Your task to perform on an android device: Do I have any events tomorrow? Image 0: 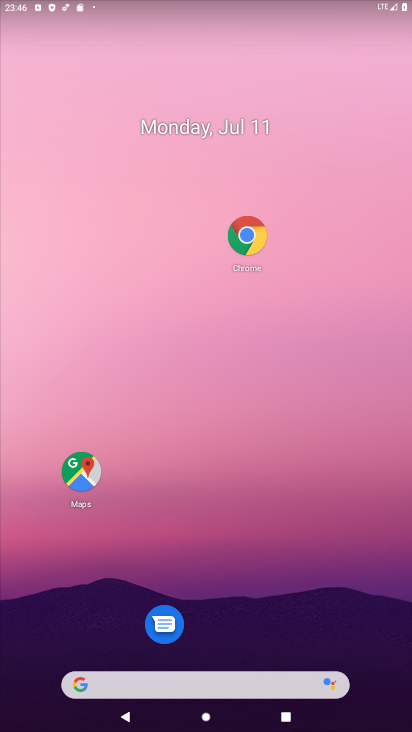
Step 0: drag from (201, 631) to (159, 149)
Your task to perform on an android device: Do I have any events tomorrow? Image 1: 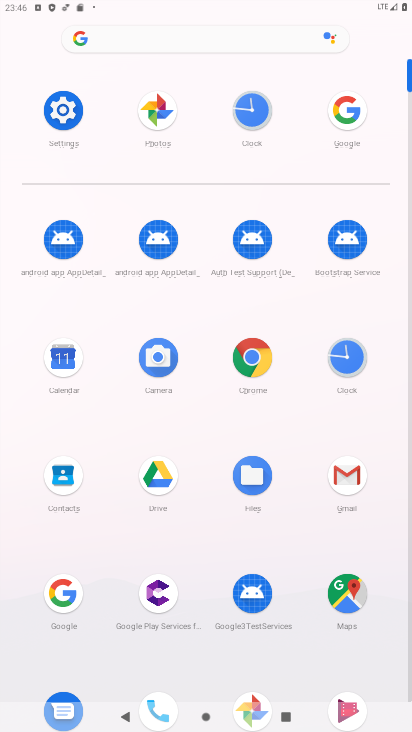
Step 1: click (59, 111)
Your task to perform on an android device: Do I have any events tomorrow? Image 2: 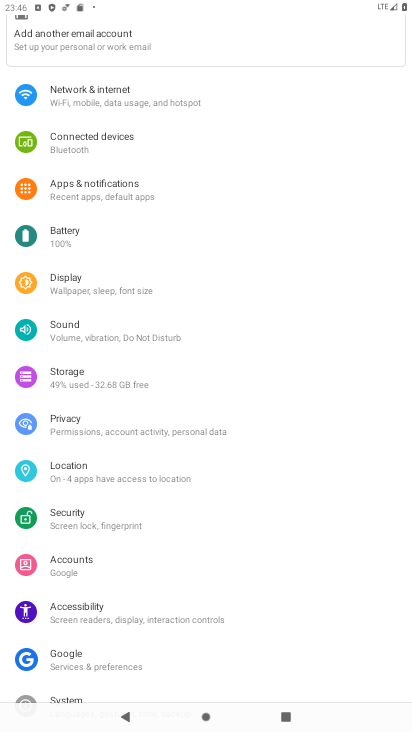
Step 2: press home button
Your task to perform on an android device: Do I have any events tomorrow? Image 3: 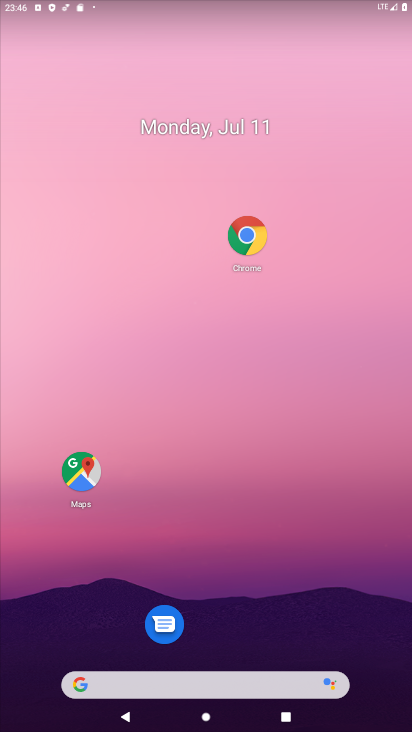
Step 3: drag from (201, 653) to (204, 284)
Your task to perform on an android device: Do I have any events tomorrow? Image 4: 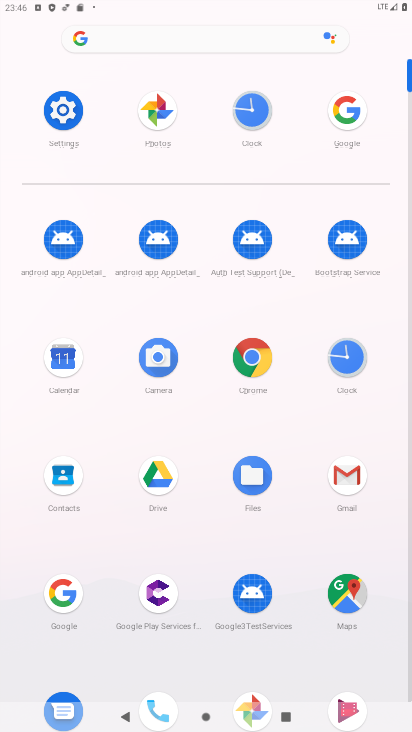
Step 4: click (71, 366)
Your task to perform on an android device: Do I have any events tomorrow? Image 5: 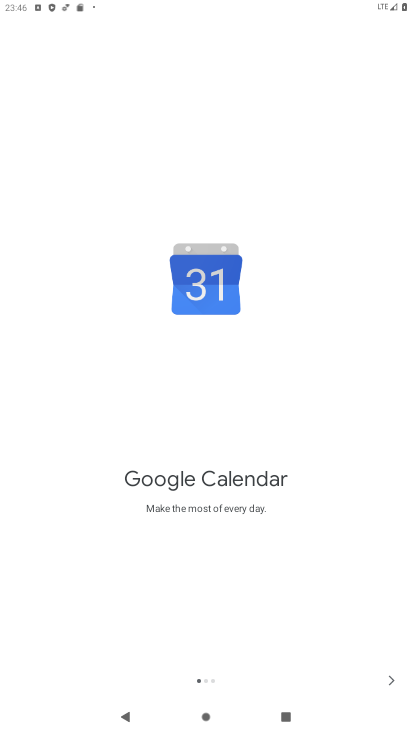
Step 5: click (393, 688)
Your task to perform on an android device: Do I have any events tomorrow? Image 6: 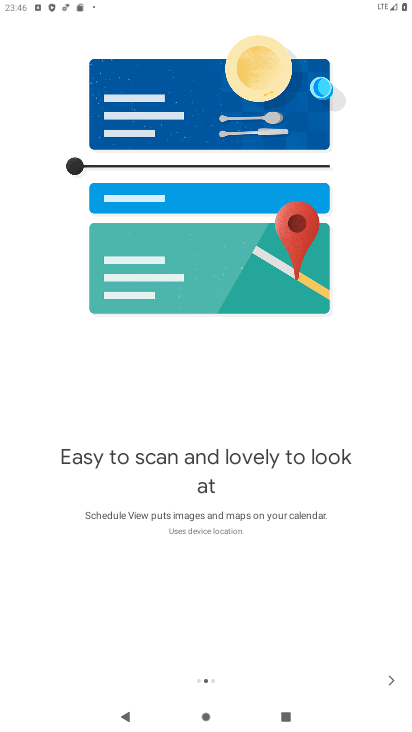
Step 6: click (393, 688)
Your task to perform on an android device: Do I have any events tomorrow? Image 7: 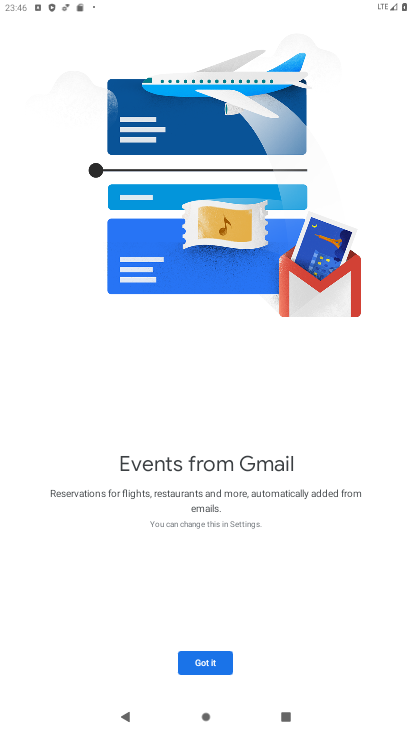
Step 7: click (393, 688)
Your task to perform on an android device: Do I have any events tomorrow? Image 8: 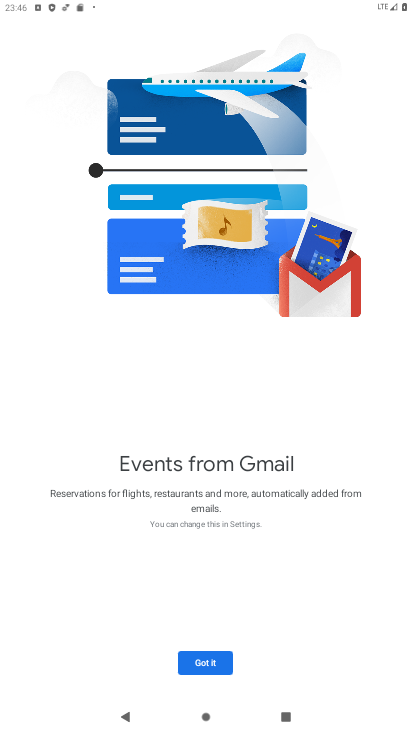
Step 8: click (215, 660)
Your task to perform on an android device: Do I have any events tomorrow? Image 9: 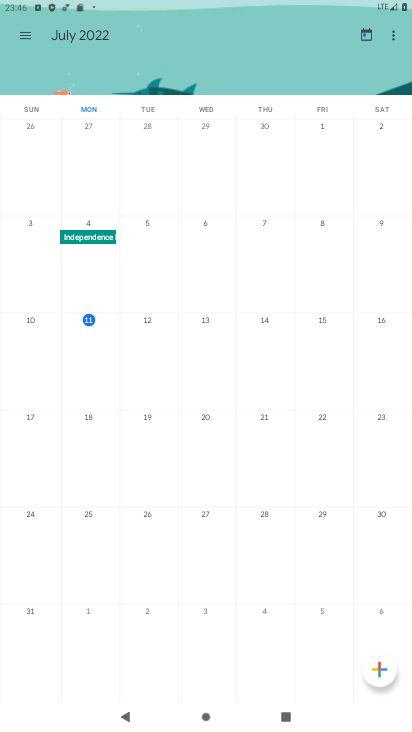
Step 9: click (19, 45)
Your task to perform on an android device: Do I have any events tomorrow? Image 10: 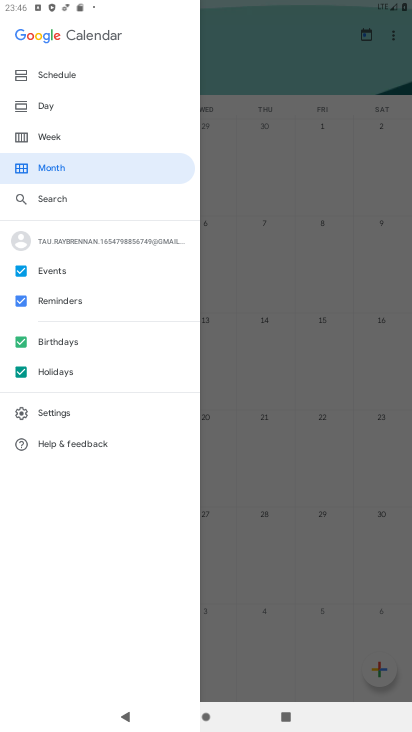
Step 10: click (70, 77)
Your task to perform on an android device: Do I have any events tomorrow? Image 11: 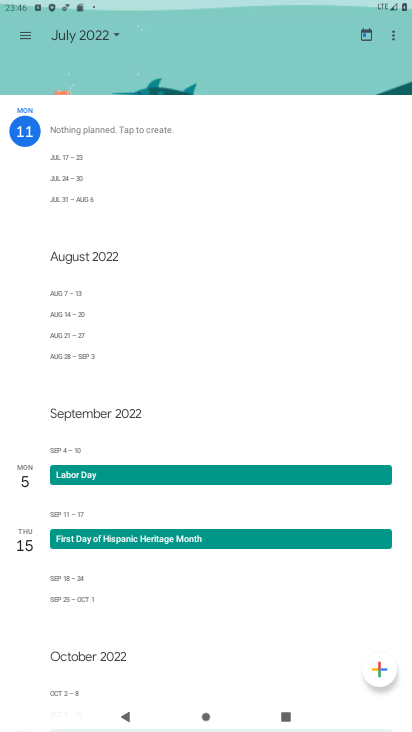
Step 11: task complete